Your task to perform on an android device: delete a single message in the gmail app Image 0: 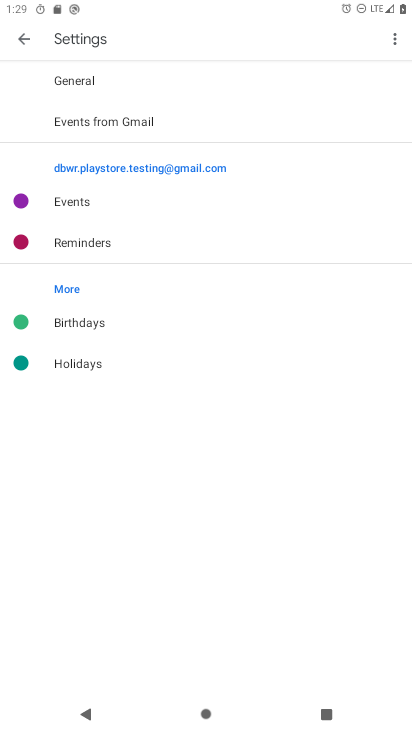
Step 0: press home button
Your task to perform on an android device: delete a single message in the gmail app Image 1: 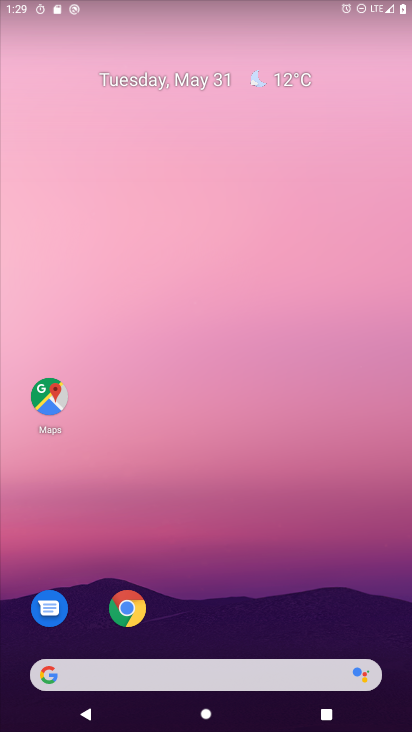
Step 1: drag from (235, 645) to (256, 17)
Your task to perform on an android device: delete a single message in the gmail app Image 2: 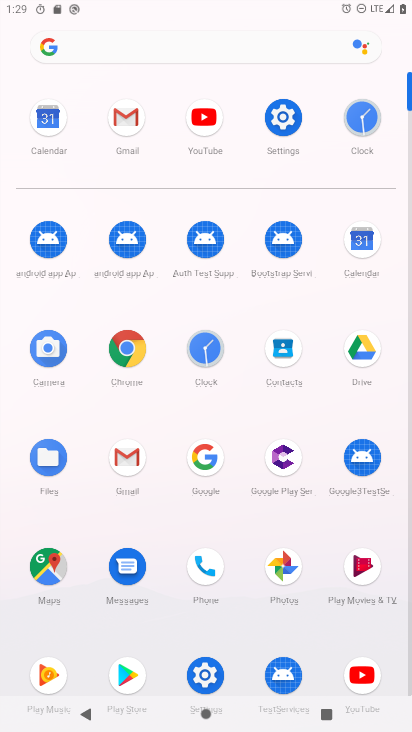
Step 2: click (117, 119)
Your task to perform on an android device: delete a single message in the gmail app Image 3: 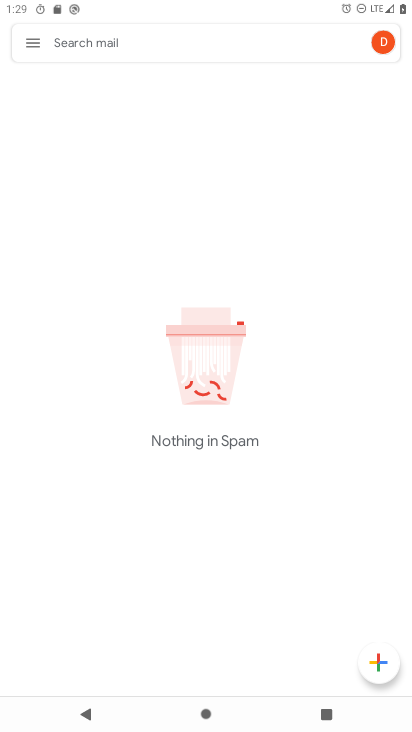
Step 3: click (28, 42)
Your task to perform on an android device: delete a single message in the gmail app Image 4: 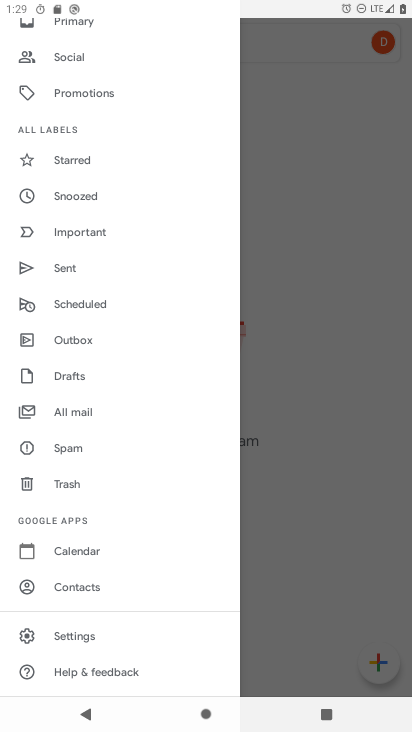
Step 4: click (64, 410)
Your task to perform on an android device: delete a single message in the gmail app Image 5: 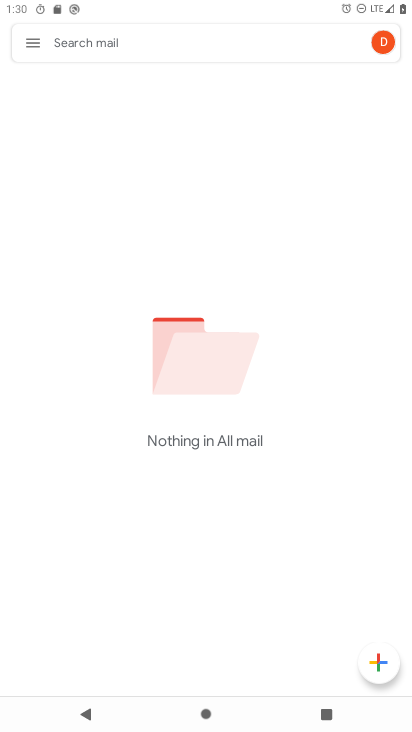
Step 5: task complete